Your task to perform on an android device: toggle pop-ups in chrome Image 0: 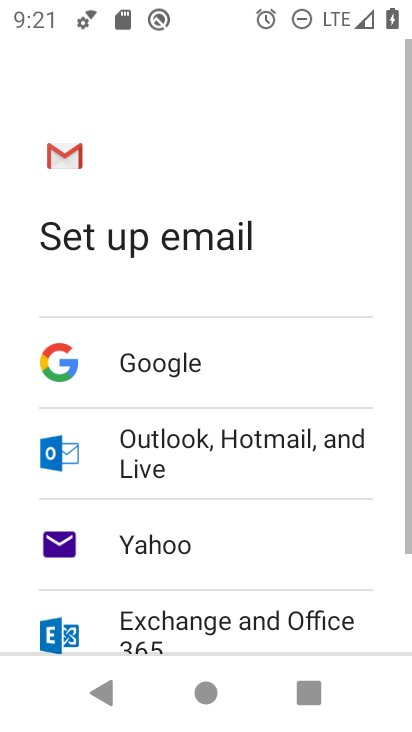
Step 0: press home button
Your task to perform on an android device: toggle pop-ups in chrome Image 1: 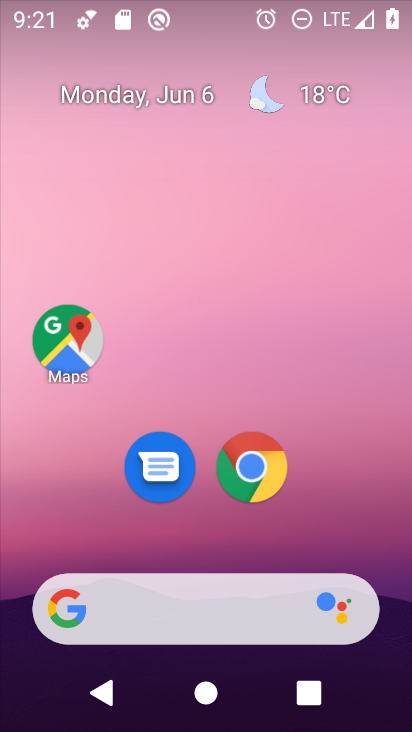
Step 1: drag from (366, 497) to (383, 89)
Your task to perform on an android device: toggle pop-ups in chrome Image 2: 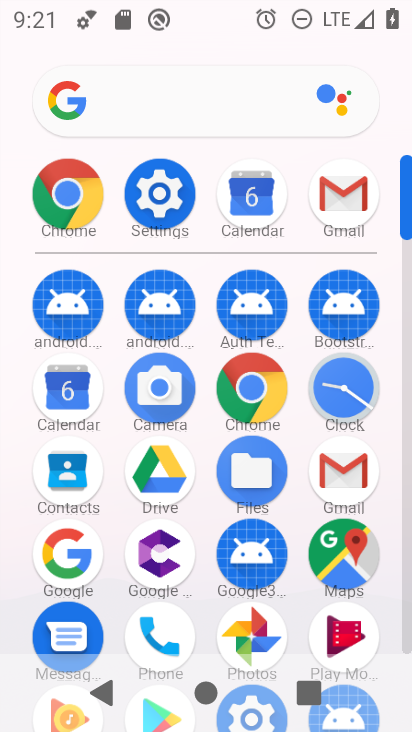
Step 2: click (263, 394)
Your task to perform on an android device: toggle pop-ups in chrome Image 3: 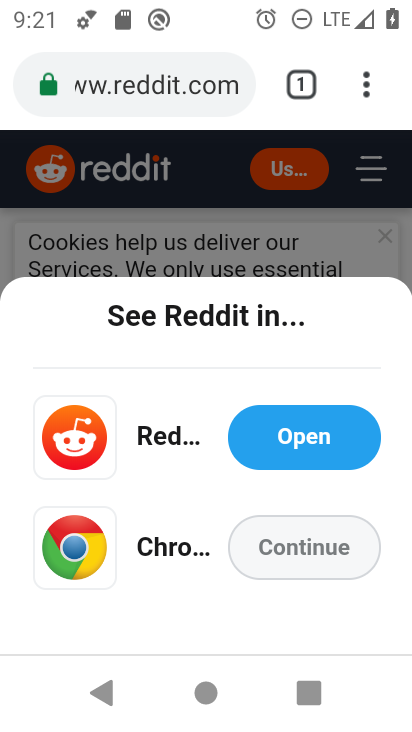
Step 3: click (365, 94)
Your task to perform on an android device: toggle pop-ups in chrome Image 4: 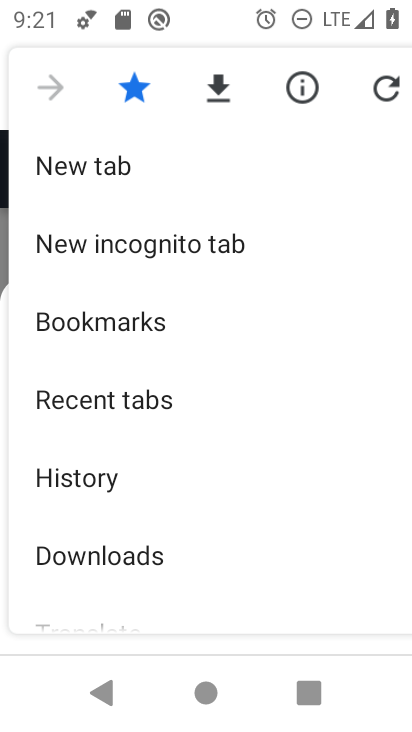
Step 4: drag from (324, 394) to (343, 247)
Your task to perform on an android device: toggle pop-ups in chrome Image 5: 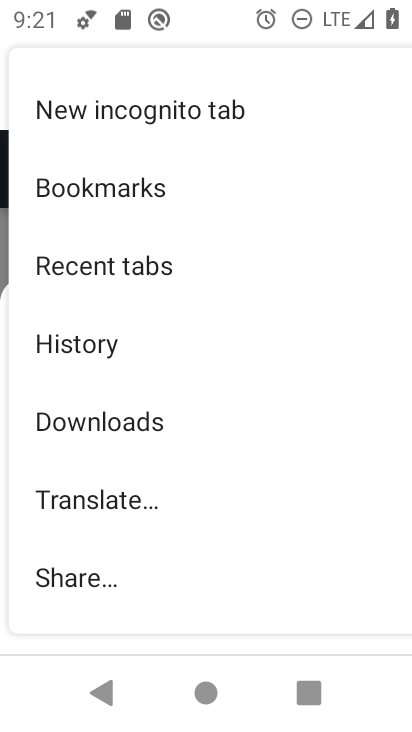
Step 5: drag from (346, 472) to (360, 243)
Your task to perform on an android device: toggle pop-ups in chrome Image 6: 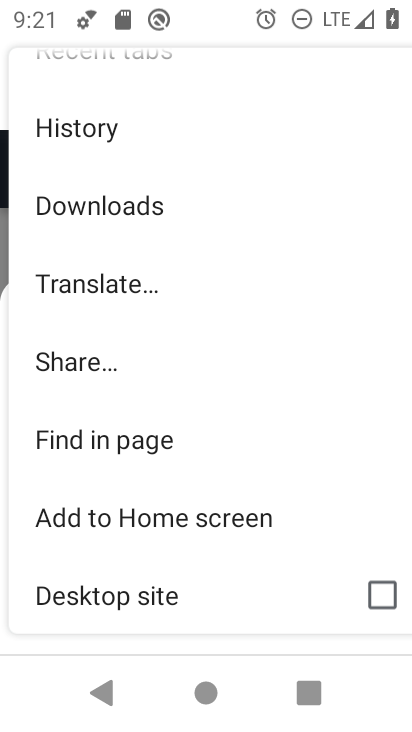
Step 6: drag from (319, 495) to (330, 227)
Your task to perform on an android device: toggle pop-ups in chrome Image 7: 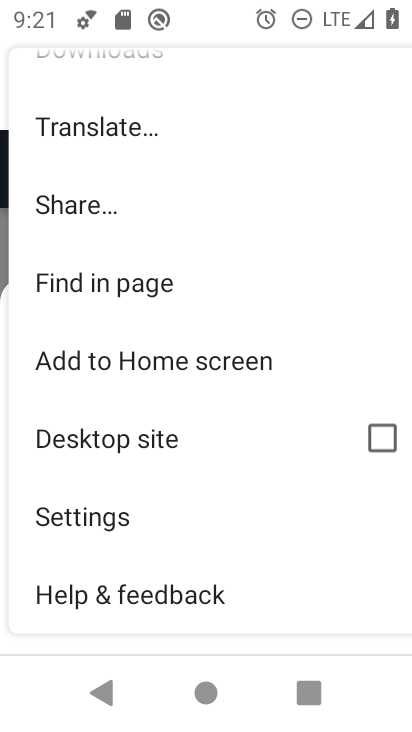
Step 7: click (129, 520)
Your task to perform on an android device: toggle pop-ups in chrome Image 8: 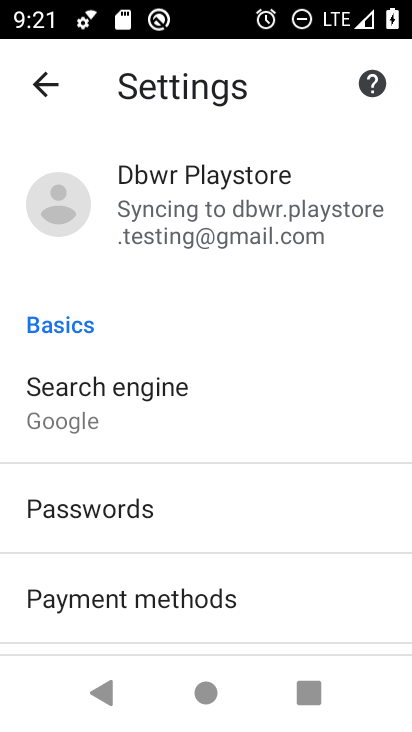
Step 8: drag from (340, 507) to (343, 368)
Your task to perform on an android device: toggle pop-ups in chrome Image 9: 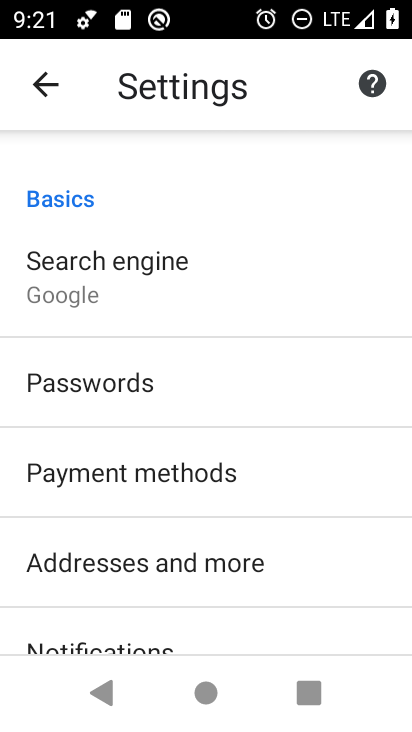
Step 9: drag from (337, 528) to (343, 338)
Your task to perform on an android device: toggle pop-ups in chrome Image 10: 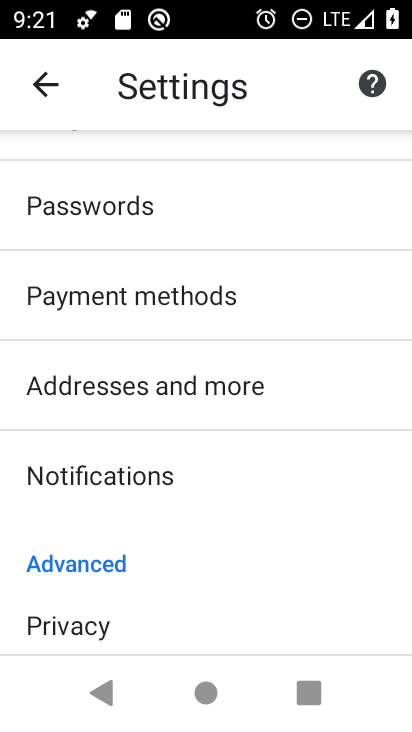
Step 10: drag from (356, 520) to (360, 331)
Your task to perform on an android device: toggle pop-ups in chrome Image 11: 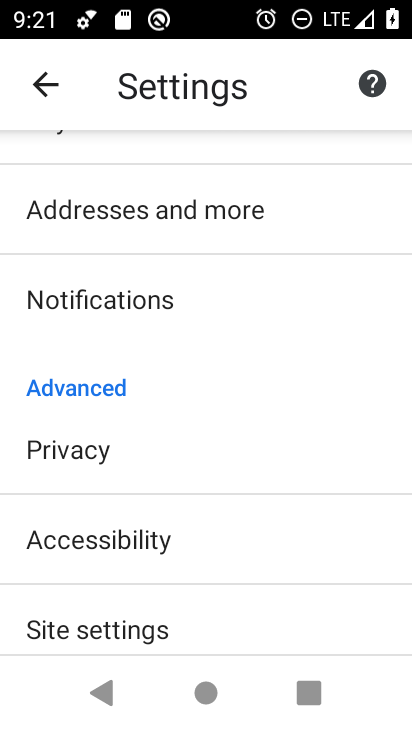
Step 11: drag from (337, 579) to (363, 365)
Your task to perform on an android device: toggle pop-ups in chrome Image 12: 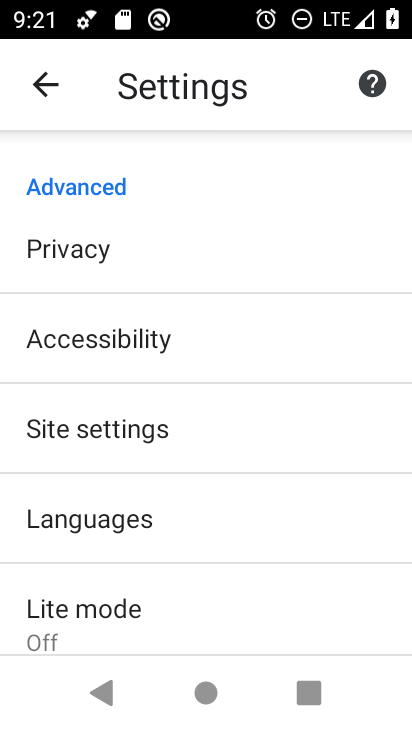
Step 12: drag from (341, 556) to (336, 391)
Your task to perform on an android device: toggle pop-ups in chrome Image 13: 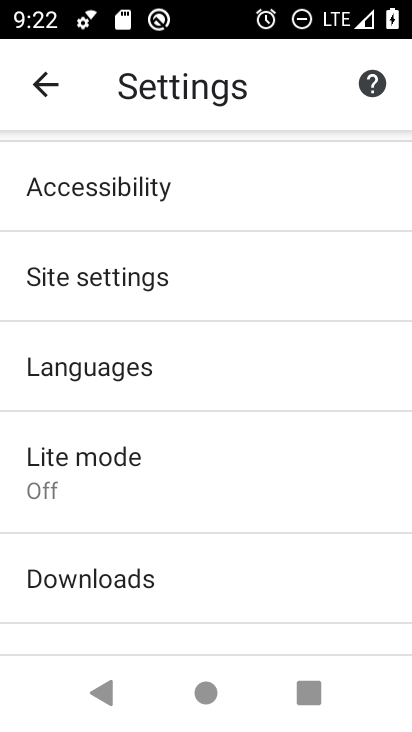
Step 13: click (248, 263)
Your task to perform on an android device: toggle pop-ups in chrome Image 14: 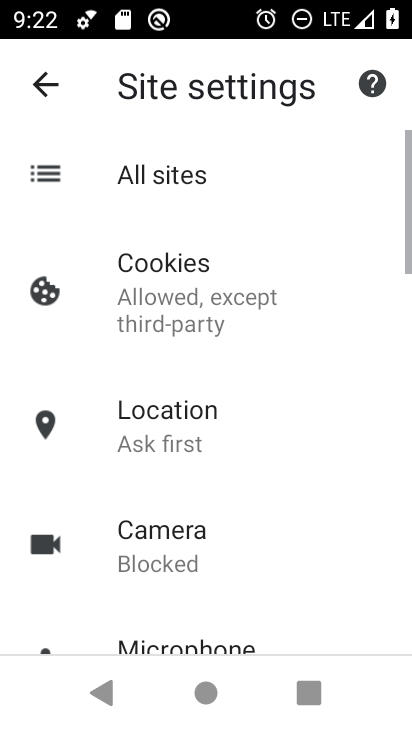
Step 14: drag from (326, 466) to (336, 282)
Your task to perform on an android device: toggle pop-ups in chrome Image 15: 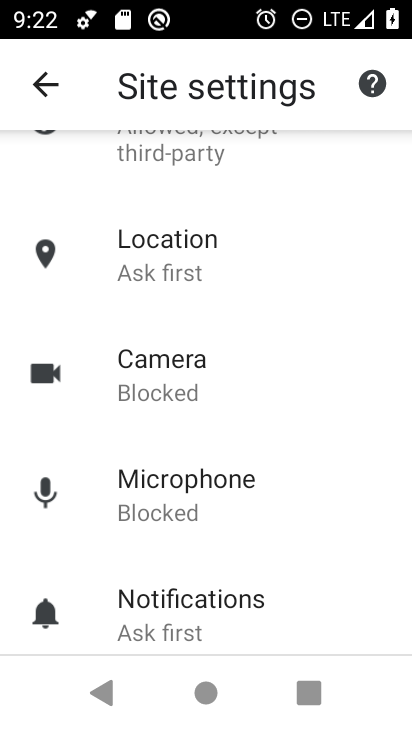
Step 15: drag from (310, 532) to (338, 311)
Your task to perform on an android device: toggle pop-ups in chrome Image 16: 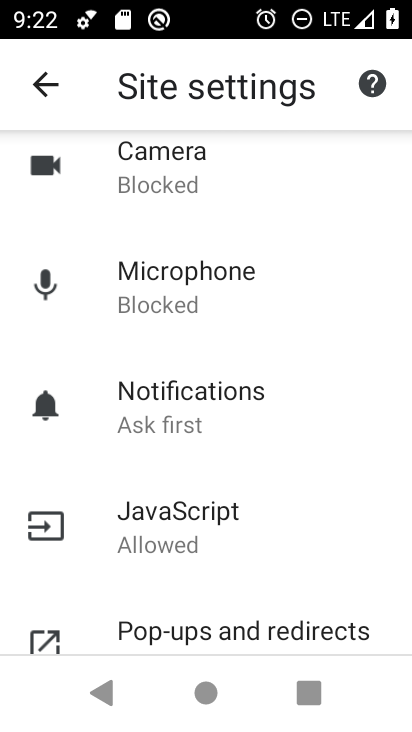
Step 16: drag from (342, 525) to (337, 356)
Your task to perform on an android device: toggle pop-ups in chrome Image 17: 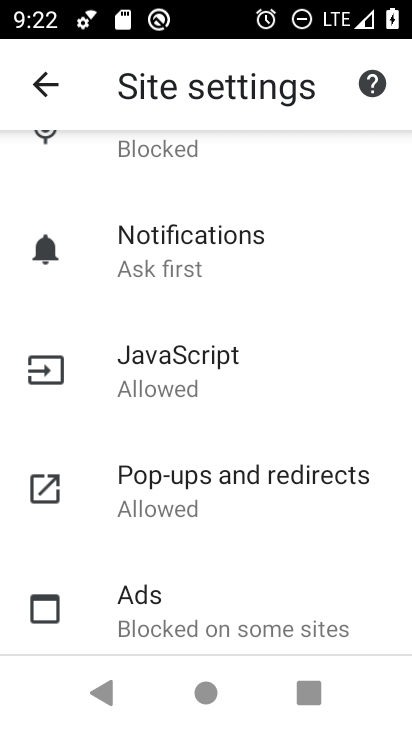
Step 17: click (298, 500)
Your task to perform on an android device: toggle pop-ups in chrome Image 18: 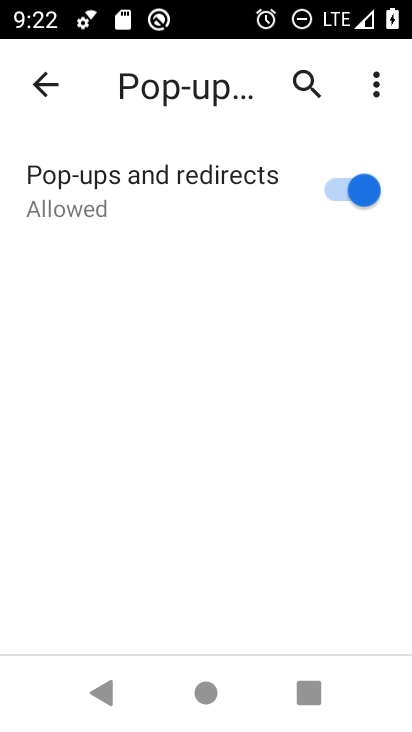
Step 18: click (366, 186)
Your task to perform on an android device: toggle pop-ups in chrome Image 19: 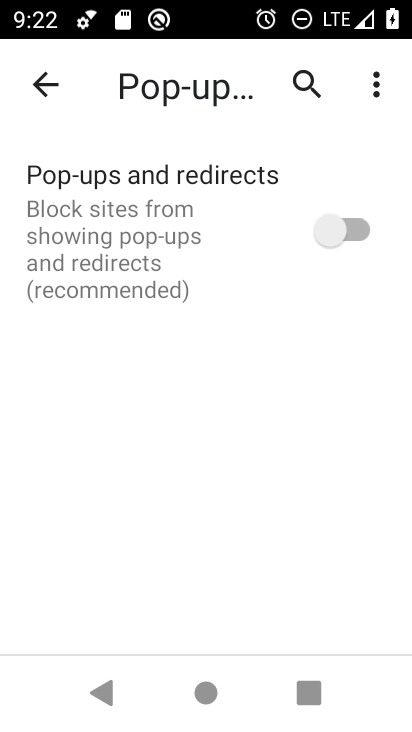
Step 19: task complete